Your task to perform on an android device: Search for Mexican restaurants on Maps Image 0: 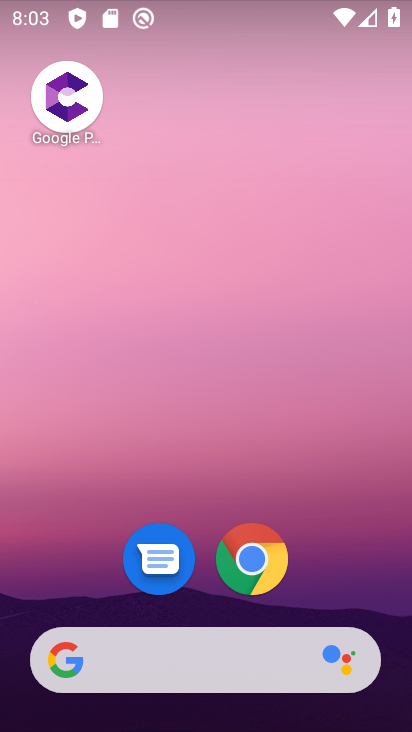
Step 0: drag from (225, 324) to (275, 63)
Your task to perform on an android device: Search for Mexican restaurants on Maps Image 1: 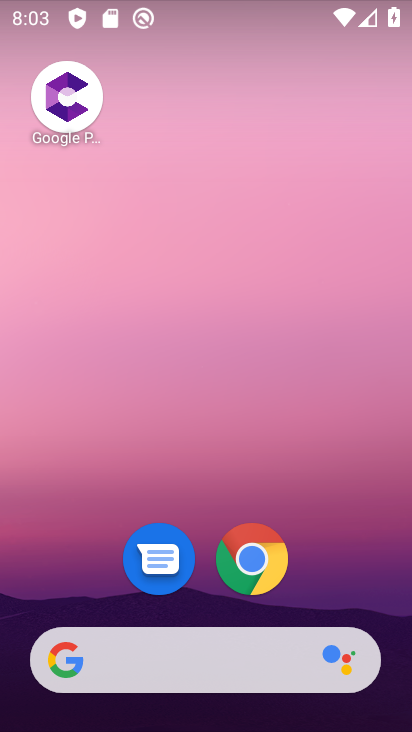
Step 1: drag from (199, 572) to (243, 62)
Your task to perform on an android device: Search for Mexican restaurants on Maps Image 2: 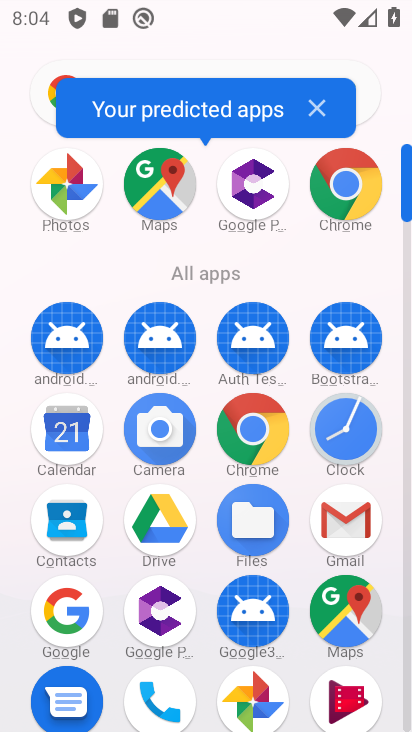
Step 2: click (368, 635)
Your task to perform on an android device: Search for Mexican restaurants on Maps Image 3: 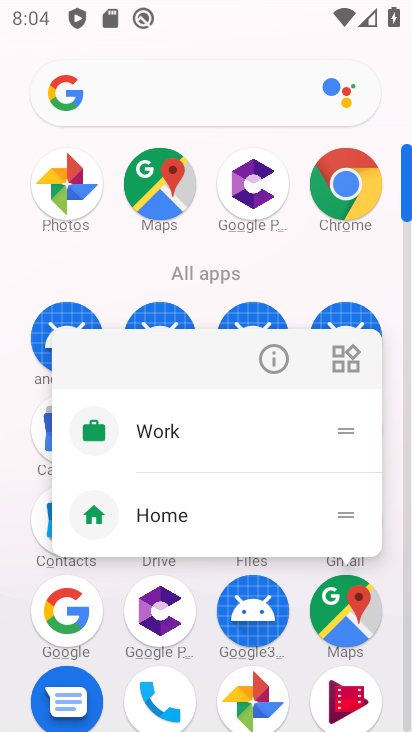
Step 3: click (357, 625)
Your task to perform on an android device: Search for Mexican restaurants on Maps Image 4: 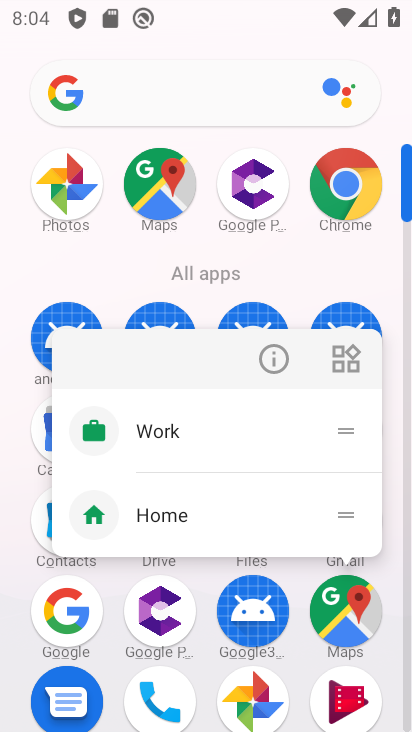
Step 4: click (350, 600)
Your task to perform on an android device: Search for Mexican restaurants on Maps Image 5: 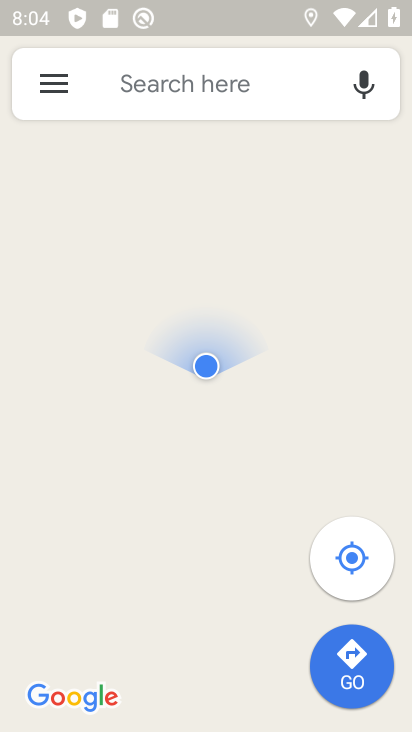
Step 5: click (185, 101)
Your task to perform on an android device: Search for Mexican restaurants on Maps Image 6: 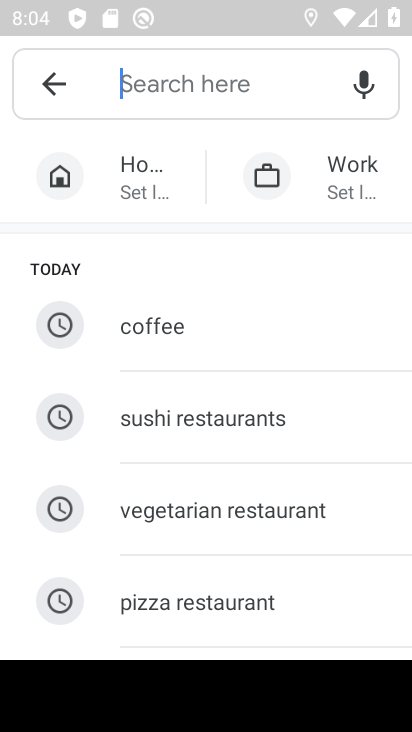
Step 6: type "Mexican restaurants "
Your task to perform on an android device: Search for Mexican restaurants on Maps Image 7: 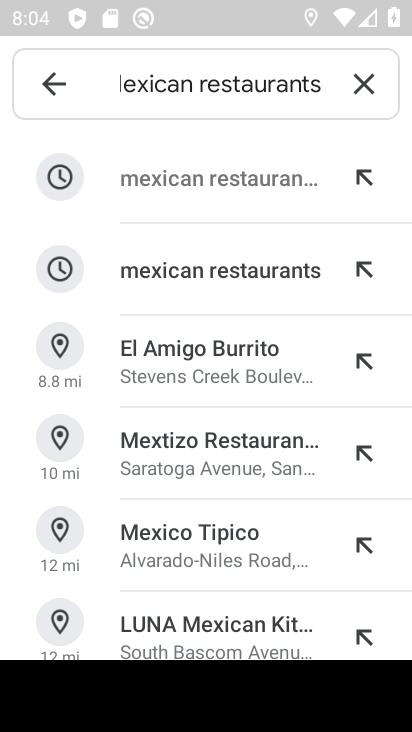
Step 7: click (241, 159)
Your task to perform on an android device: Search for Mexican restaurants on Maps Image 8: 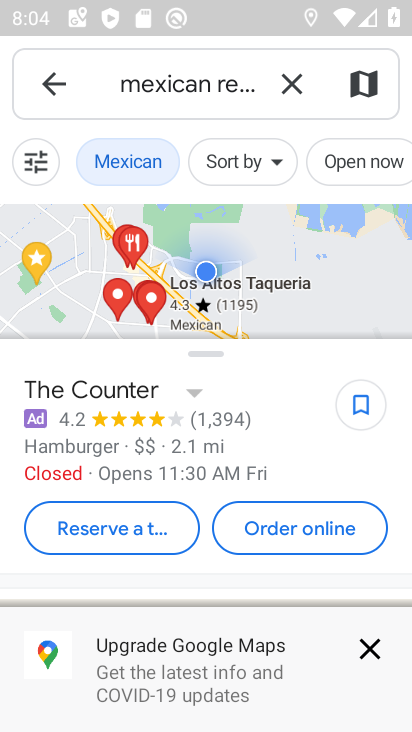
Step 8: click (373, 657)
Your task to perform on an android device: Search for Mexican restaurants on Maps Image 9: 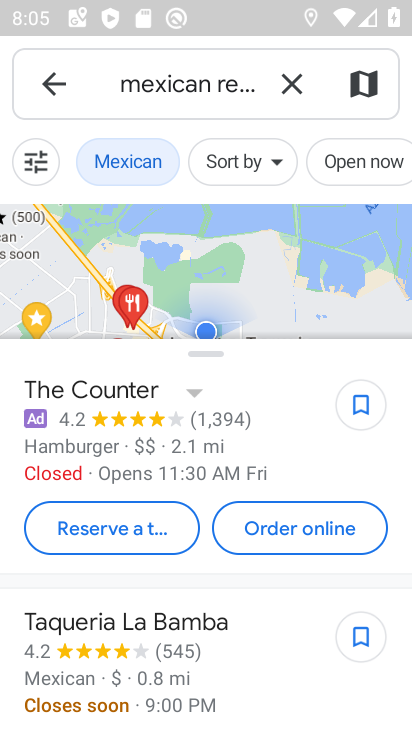
Step 9: task complete